Your task to perform on an android device: check google app version Image 0: 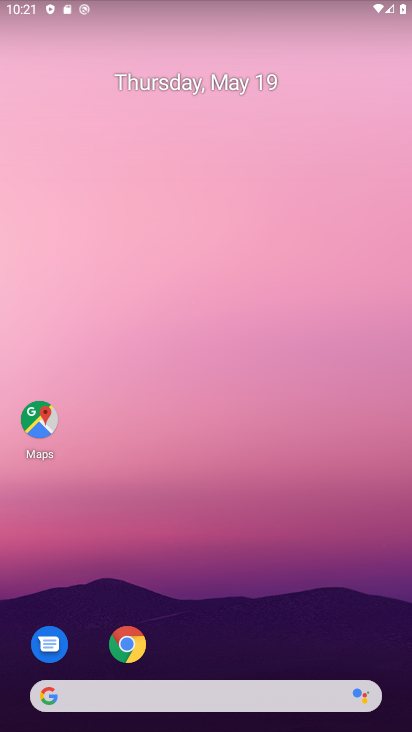
Step 0: drag from (318, 602) to (246, 278)
Your task to perform on an android device: check google app version Image 1: 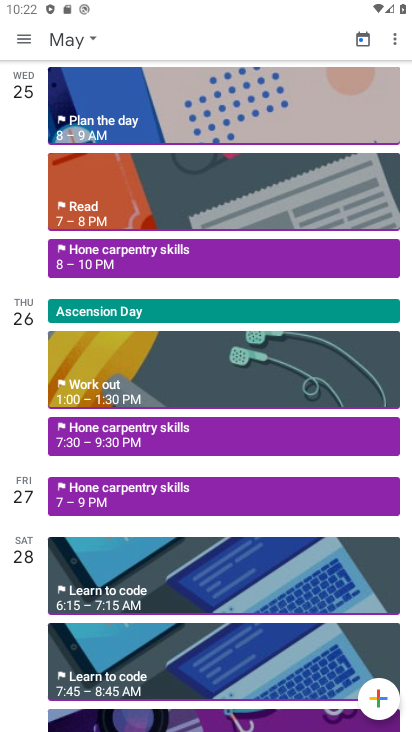
Step 1: press home button
Your task to perform on an android device: check google app version Image 2: 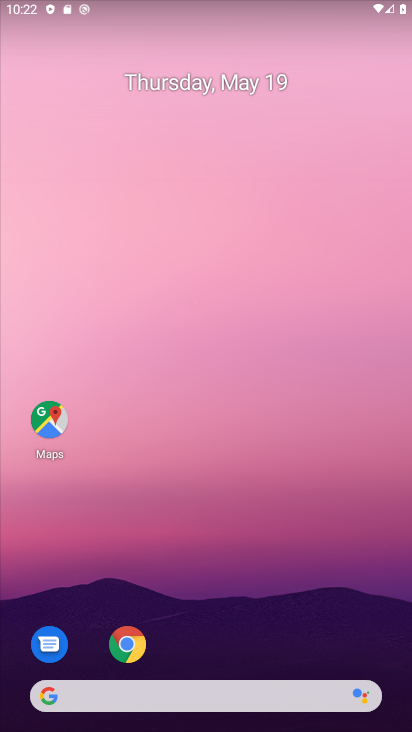
Step 2: drag from (266, 610) to (235, 17)
Your task to perform on an android device: check google app version Image 3: 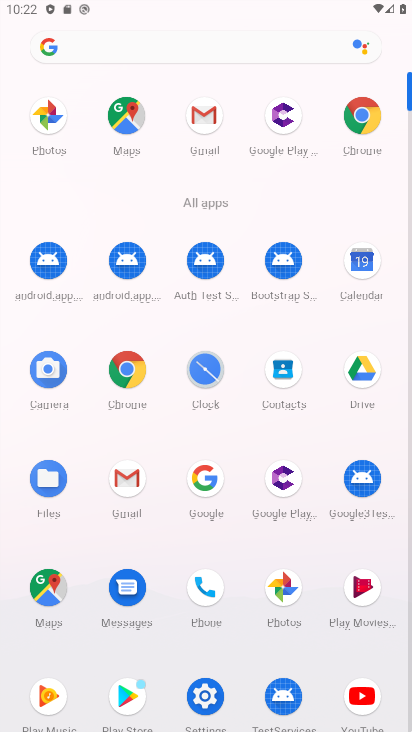
Step 3: click (219, 489)
Your task to perform on an android device: check google app version Image 4: 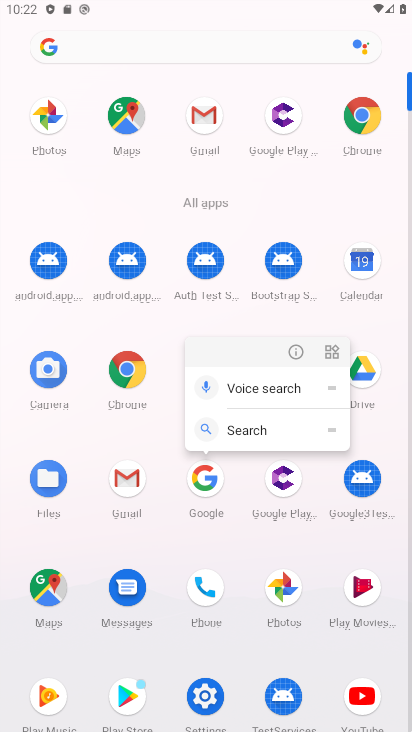
Step 4: click (299, 354)
Your task to perform on an android device: check google app version Image 5: 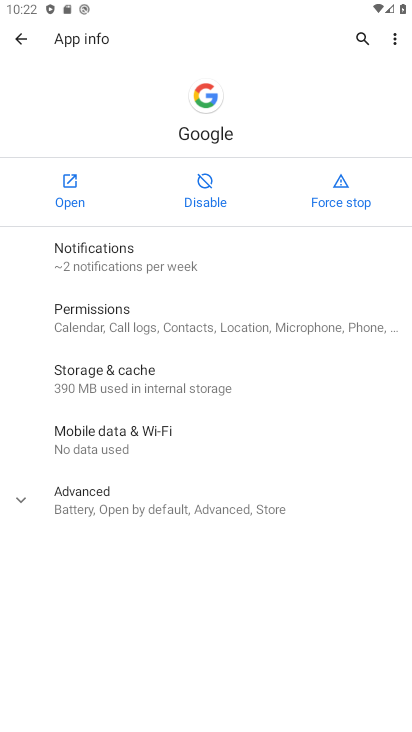
Step 5: click (117, 488)
Your task to perform on an android device: check google app version Image 6: 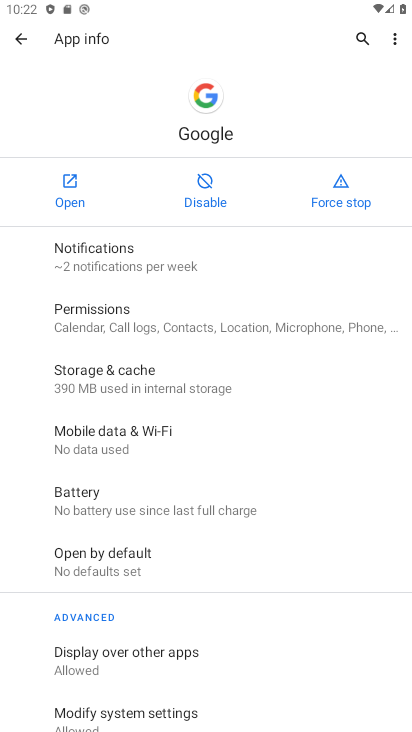
Step 6: task complete